Your task to perform on an android device: change the upload size in google photos Image 0: 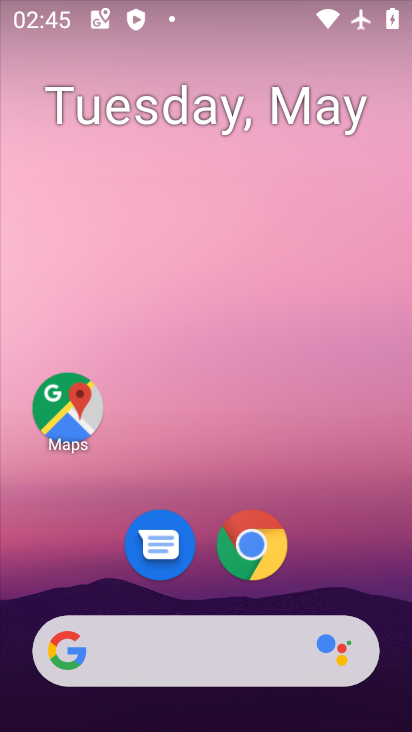
Step 0: drag from (386, 617) to (323, 179)
Your task to perform on an android device: change the upload size in google photos Image 1: 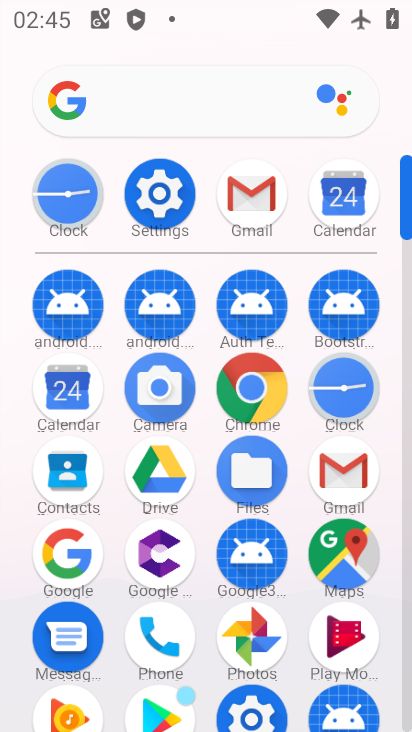
Step 1: click (409, 697)
Your task to perform on an android device: change the upload size in google photos Image 2: 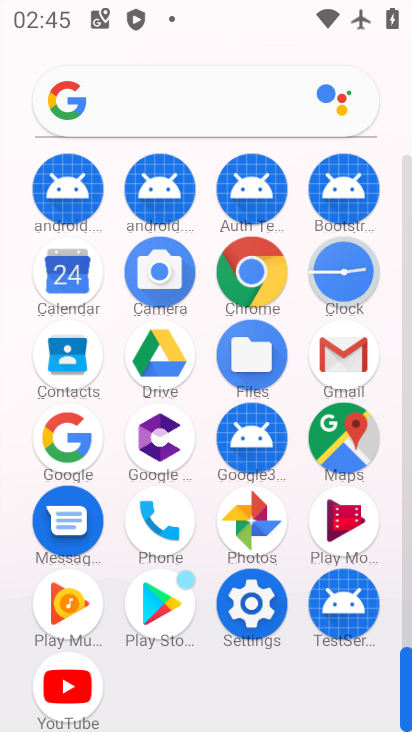
Step 2: click (248, 519)
Your task to perform on an android device: change the upload size in google photos Image 3: 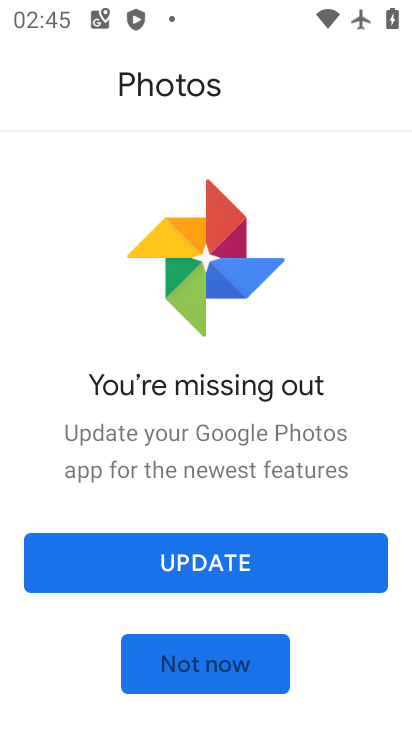
Step 3: click (210, 559)
Your task to perform on an android device: change the upload size in google photos Image 4: 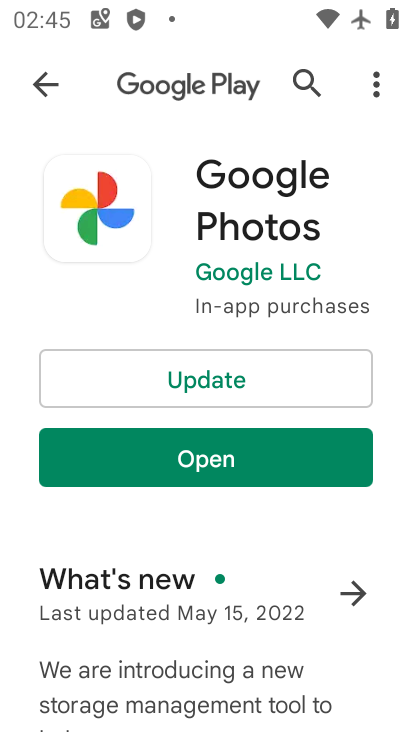
Step 4: click (196, 377)
Your task to perform on an android device: change the upload size in google photos Image 5: 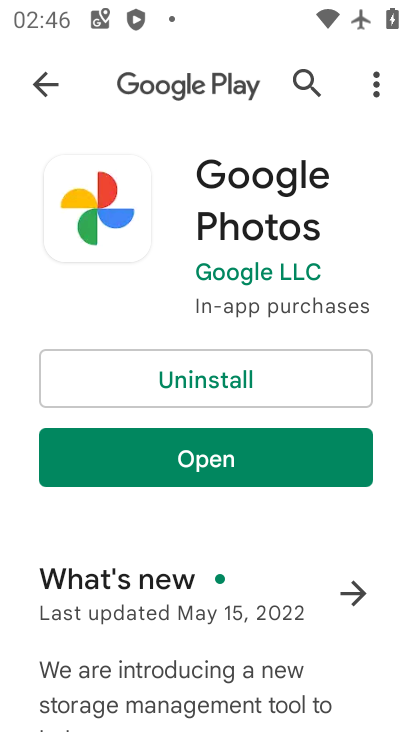
Step 5: click (196, 466)
Your task to perform on an android device: change the upload size in google photos Image 6: 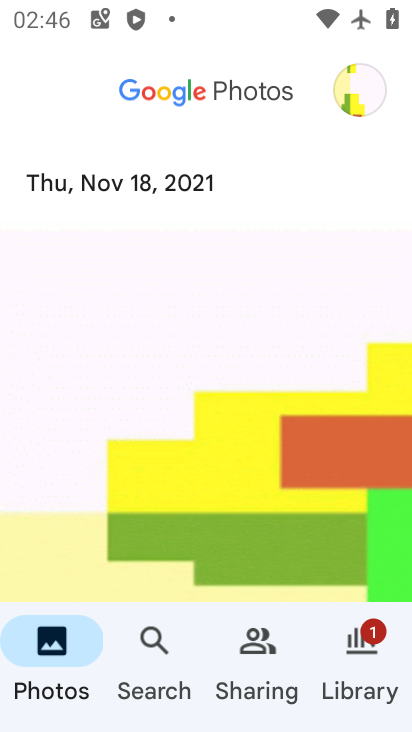
Step 6: click (361, 104)
Your task to perform on an android device: change the upload size in google photos Image 7: 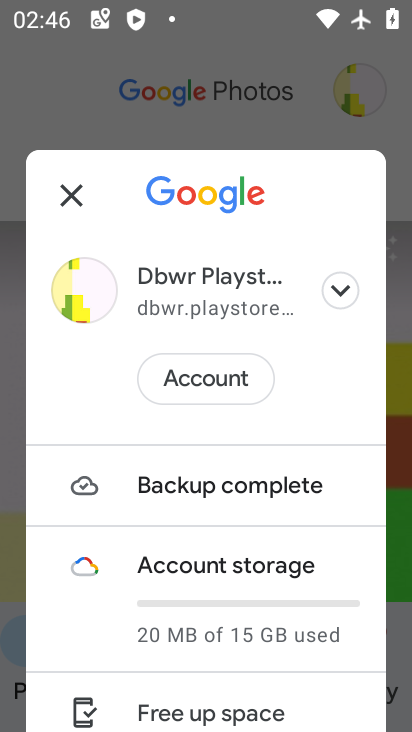
Step 7: drag from (169, 626) to (213, 204)
Your task to perform on an android device: change the upload size in google photos Image 8: 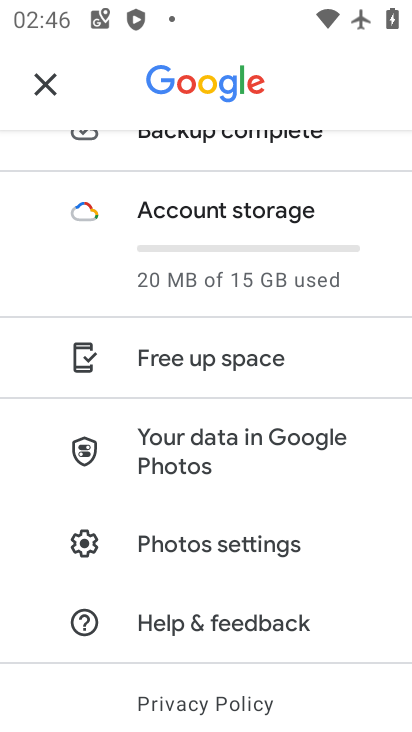
Step 8: click (183, 546)
Your task to perform on an android device: change the upload size in google photos Image 9: 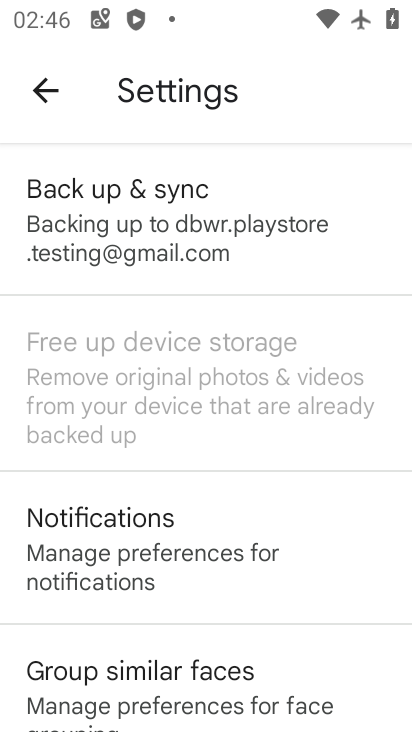
Step 9: click (184, 210)
Your task to perform on an android device: change the upload size in google photos Image 10: 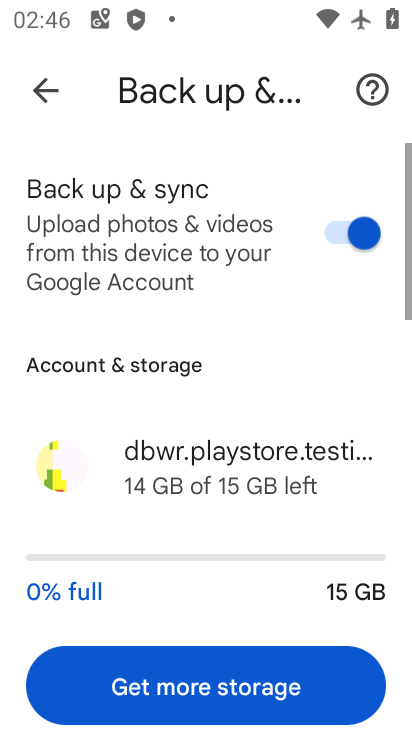
Step 10: drag from (260, 561) to (188, 67)
Your task to perform on an android device: change the upload size in google photos Image 11: 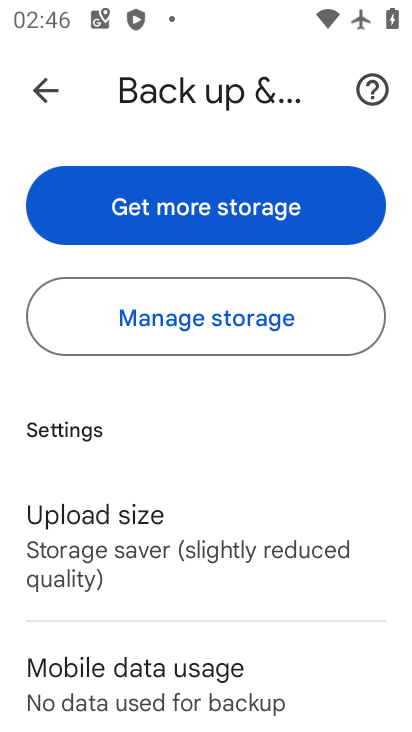
Step 11: click (81, 551)
Your task to perform on an android device: change the upload size in google photos Image 12: 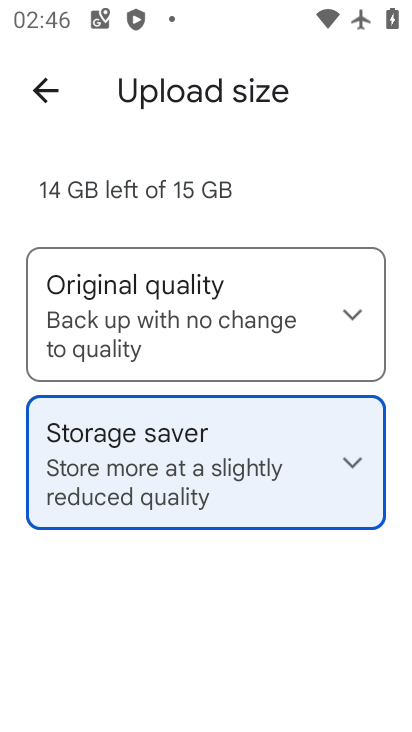
Step 12: click (159, 319)
Your task to perform on an android device: change the upload size in google photos Image 13: 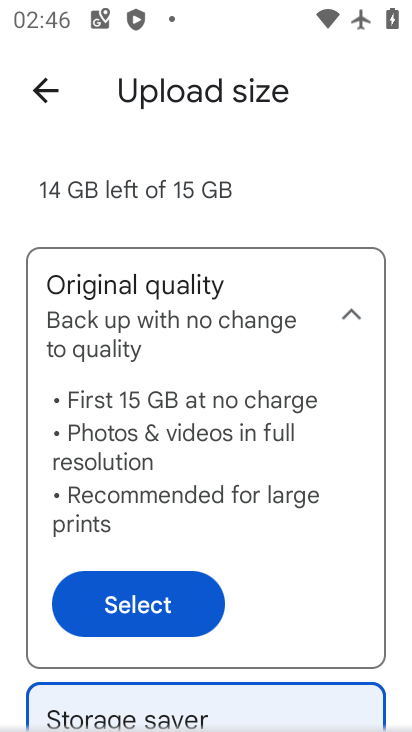
Step 13: click (118, 603)
Your task to perform on an android device: change the upload size in google photos Image 14: 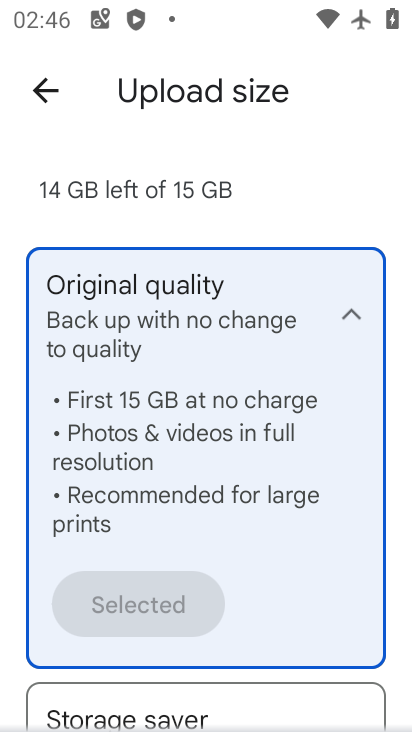
Step 14: task complete